Your task to perform on an android device: Go to Yahoo.com Image 0: 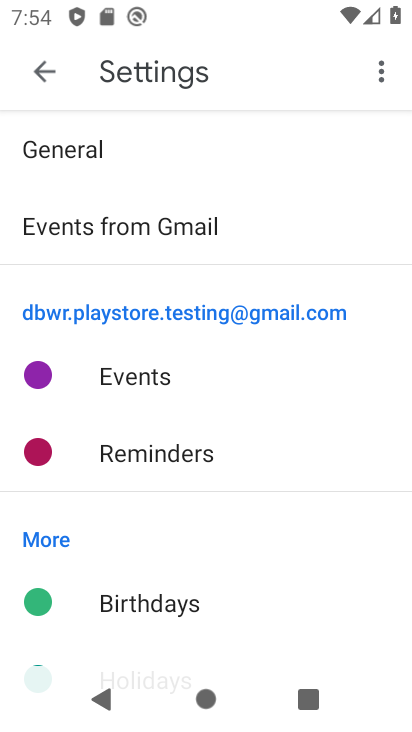
Step 0: press home button
Your task to perform on an android device: Go to Yahoo.com Image 1: 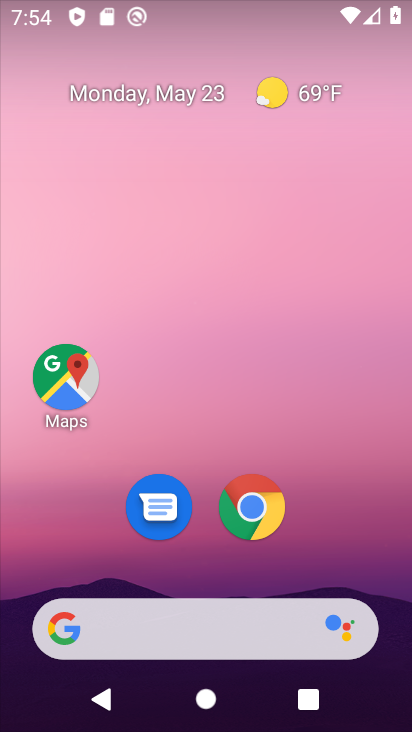
Step 1: click (252, 517)
Your task to perform on an android device: Go to Yahoo.com Image 2: 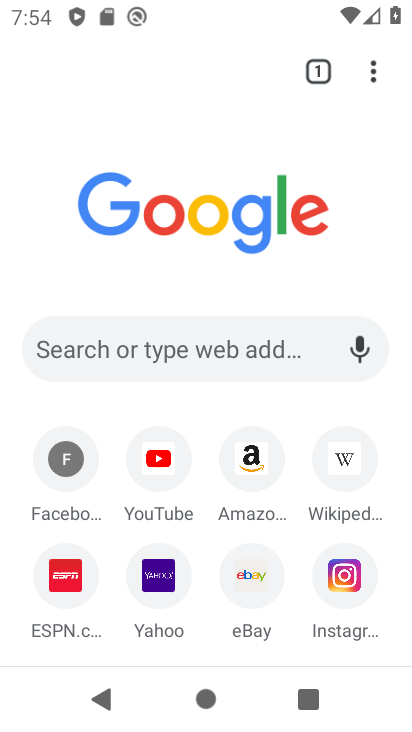
Step 2: click (146, 590)
Your task to perform on an android device: Go to Yahoo.com Image 3: 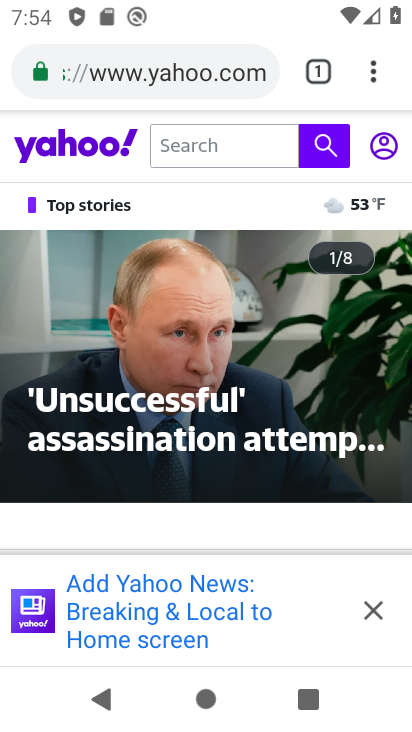
Step 3: task complete